Your task to perform on an android device: check battery use Image 0: 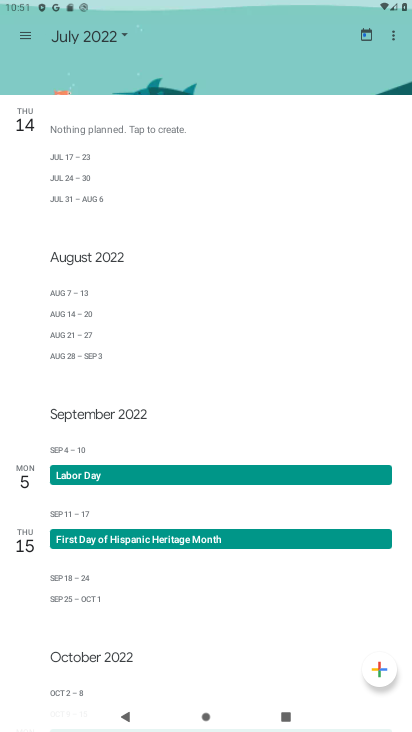
Step 0: press home button
Your task to perform on an android device: check battery use Image 1: 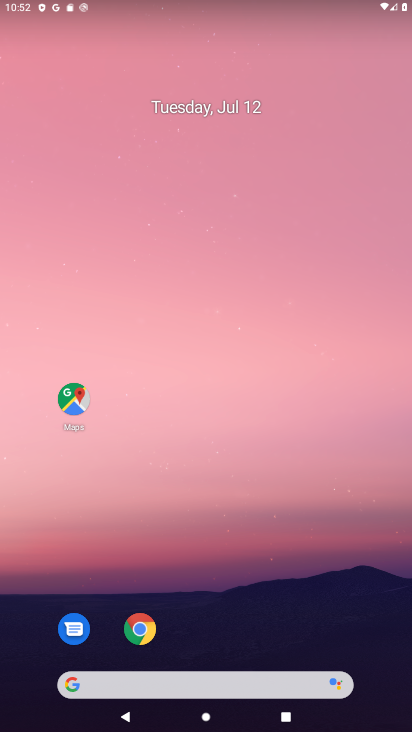
Step 1: drag from (279, 505) to (295, 326)
Your task to perform on an android device: check battery use Image 2: 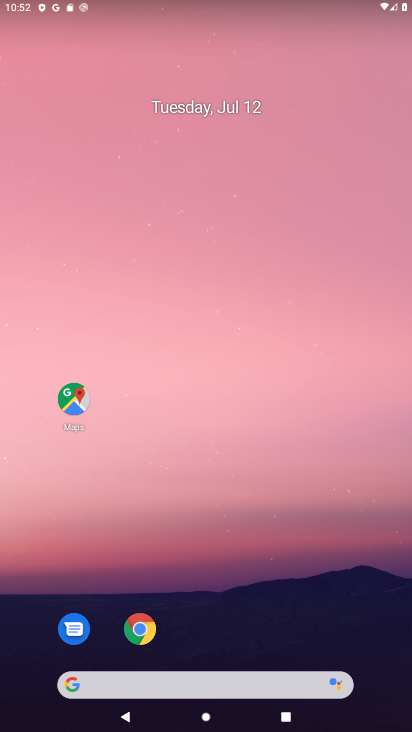
Step 2: drag from (196, 641) to (220, 292)
Your task to perform on an android device: check battery use Image 3: 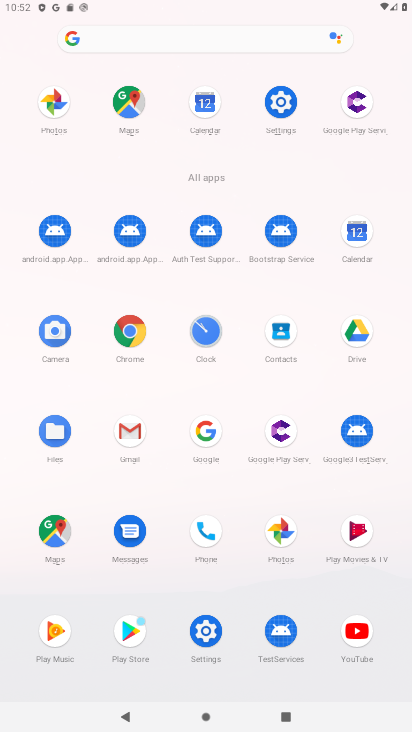
Step 3: click (284, 93)
Your task to perform on an android device: check battery use Image 4: 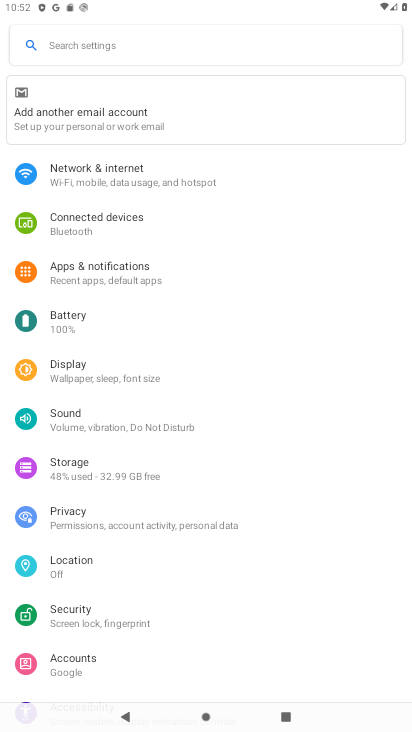
Step 4: click (84, 309)
Your task to perform on an android device: check battery use Image 5: 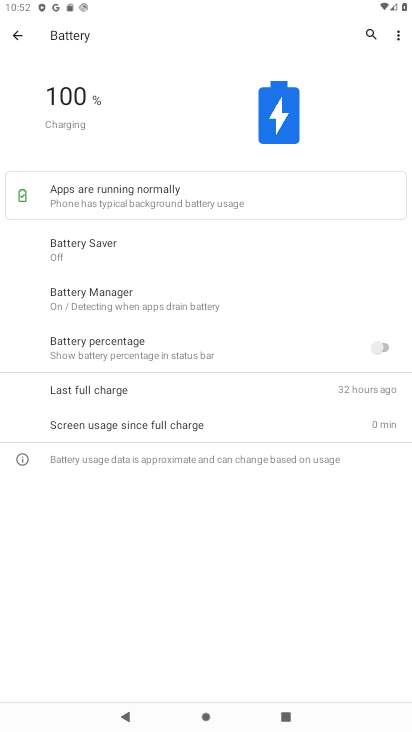
Step 5: click (149, 181)
Your task to perform on an android device: check battery use Image 6: 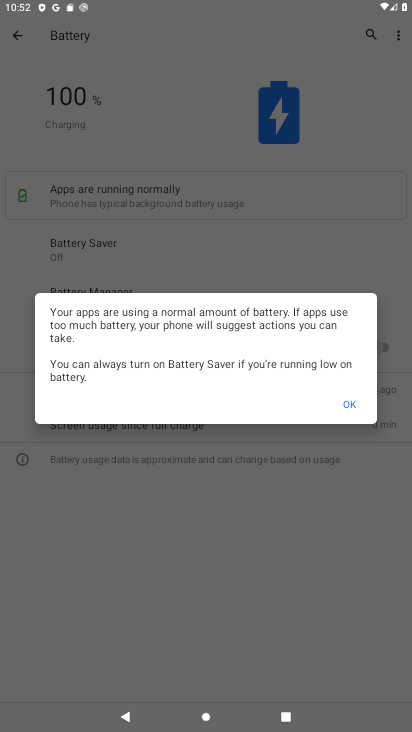
Step 6: click (358, 392)
Your task to perform on an android device: check battery use Image 7: 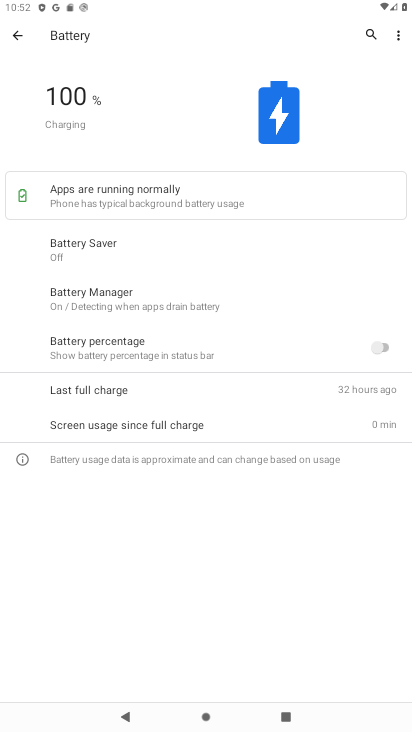
Step 7: task complete